Your task to perform on an android device: Open Youtube and go to the subscriptions tab Image 0: 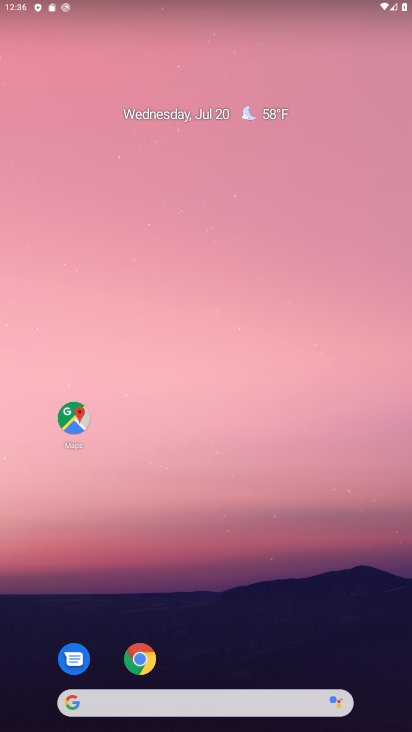
Step 0: drag from (191, 619) to (165, 206)
Your task to perform on an android device: Open Youtube and go to the subscriptions tab Image 1: 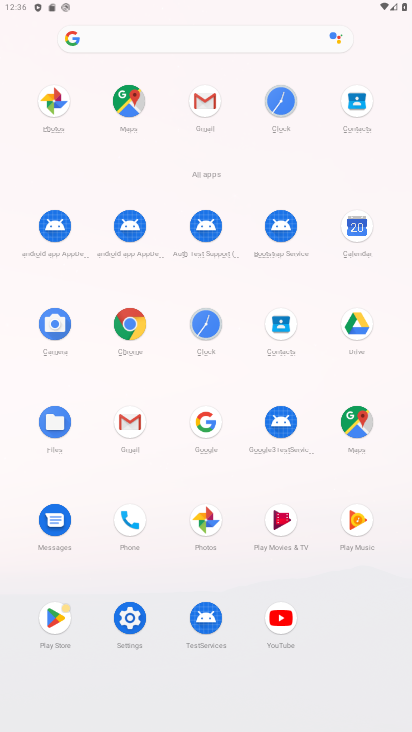
Step 1: click (287, 617)
Your task to perform on an android device: Open Youtube and go to the subscriptions tab Image 2: 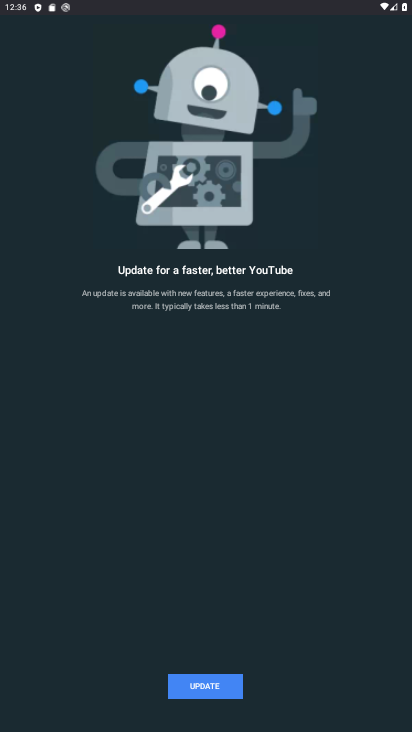
Step 2: click (212, 686)
Your task to perform on an android device: Open Youtube and go to the subscriptions tab Image 3: 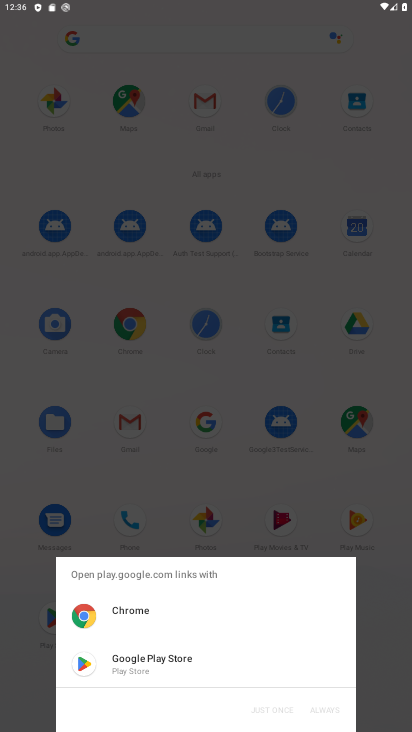
Step 3: click (144, 649)
Your task to perform on an android device: Open Youtube and go to the subscriptions tab Image 4: 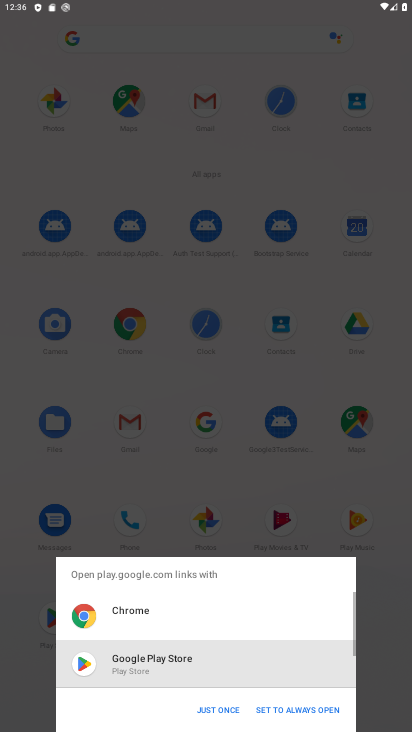
Step 4: click (221, 708)
Your task to perform on an android device: Open Youtube and go to the subscriptions tab Image 5: 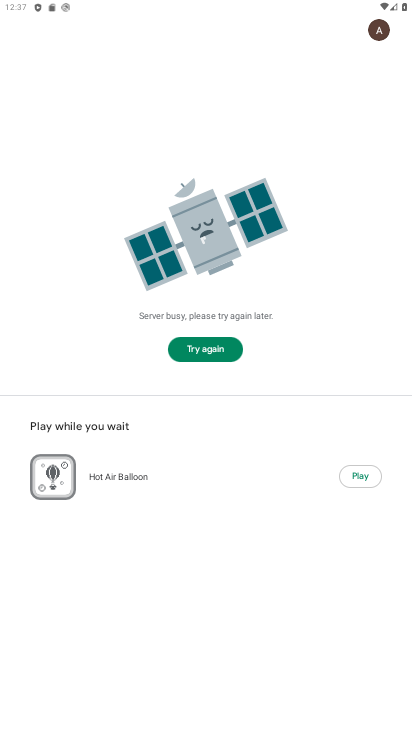
Step 5: click (217, 358)
Your task to perform on an android device: Open Youtube and go to the subscriptions tab Image 6: 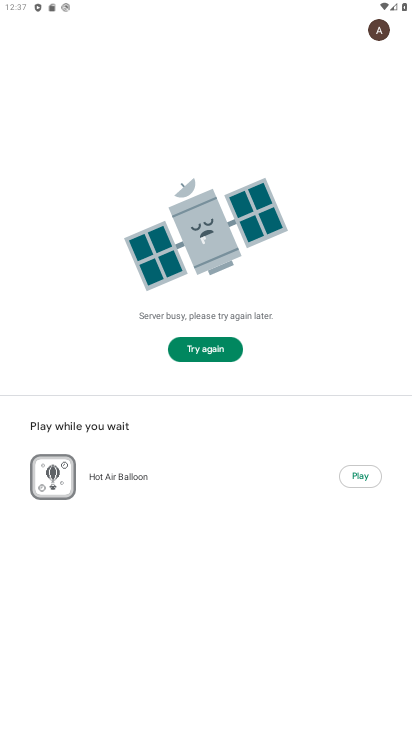
Step 6: click (215, 357)
Your task to perform on an android device: Open Youtube and go to the subscriptions tab Image 7: 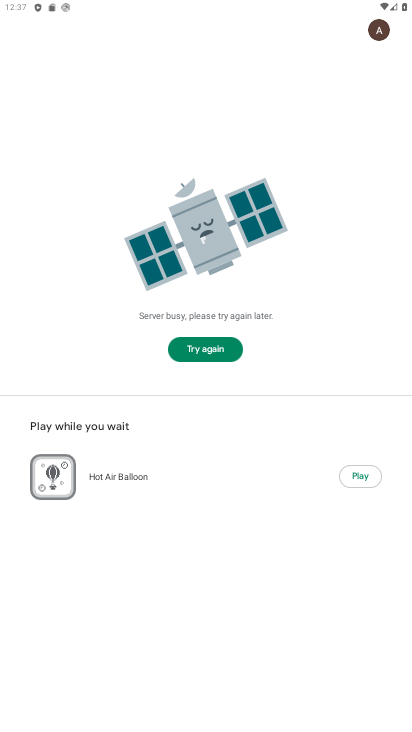
Step 7: task complete